Your task to perform on an android device: change timer sound Image 0: 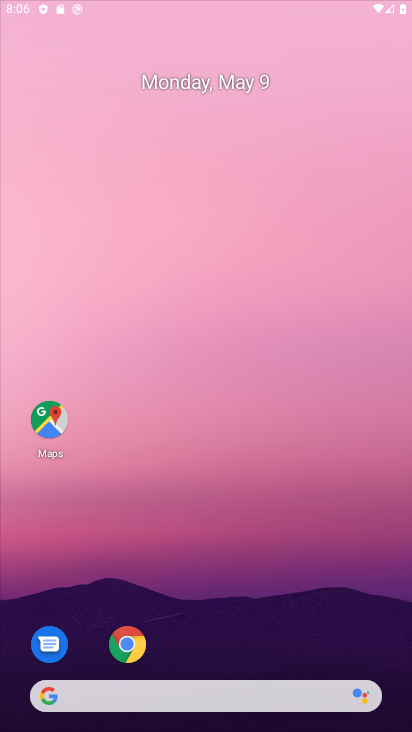
Step 0: click (223, 296)
Your task to perform on an android device: change timer sound Image 1: 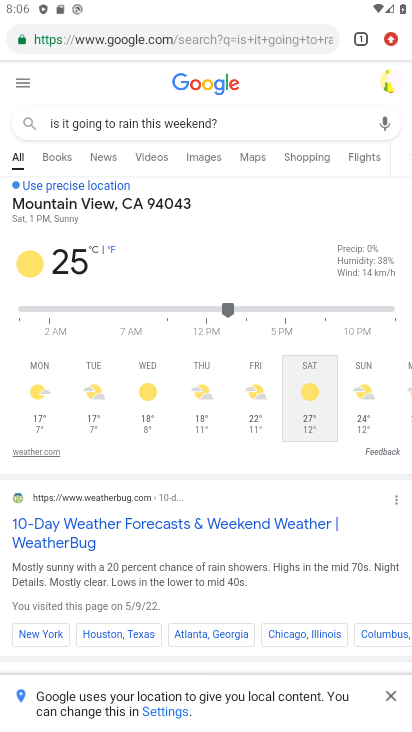
Step 1: press home button
Your task to perform on an android device: change timer sound Image 2: 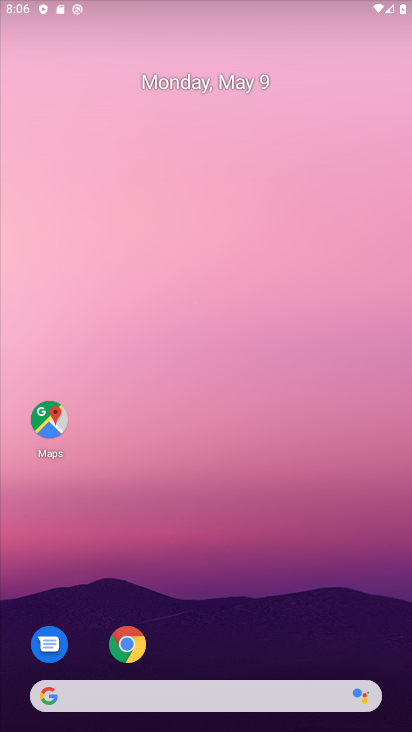
Step 2: drag from (201, 416) to (236, 74)
Your task to perform on an android device: change timer sound Image 3: 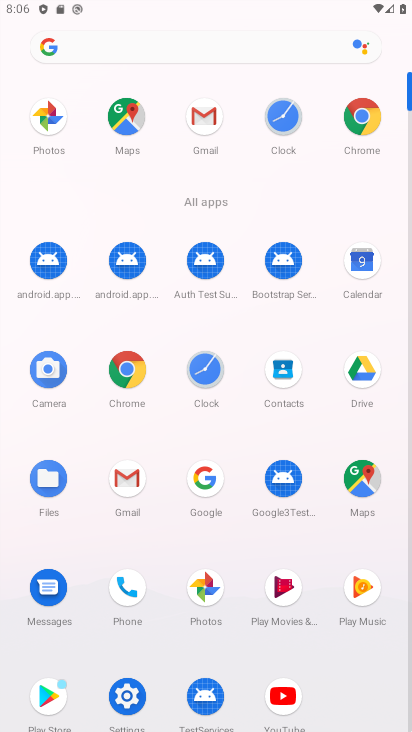
Step 3: click (204, 362)
Your task to perform on an android device: change timer sound Image 4: 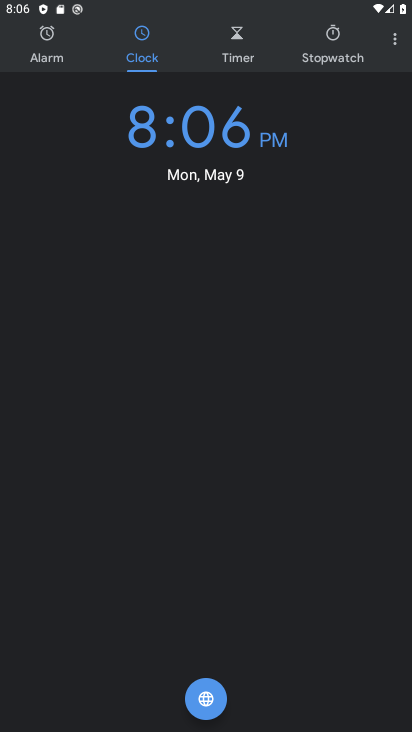
Step 4: click (395, 51)
Your task to perform on an android device: change timer sound Image 5: 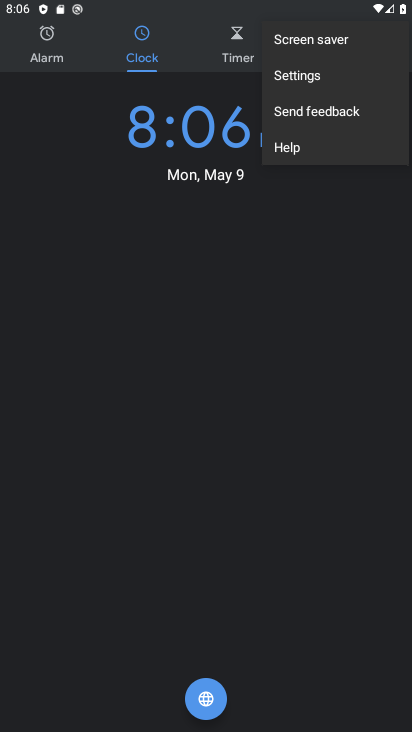
Step 5: click (318, 83)
Your task to perform on an android device: change timer sound Image 6: 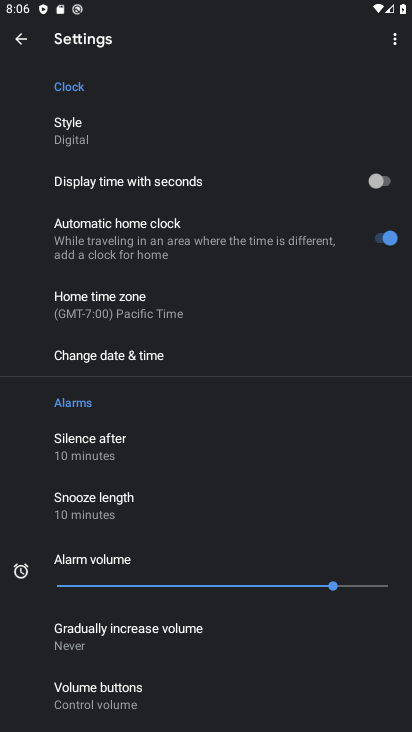
Step 6: drag from (220, 616) to (248, 346)
Your task to perform on an android device: change timer sound Image 7: 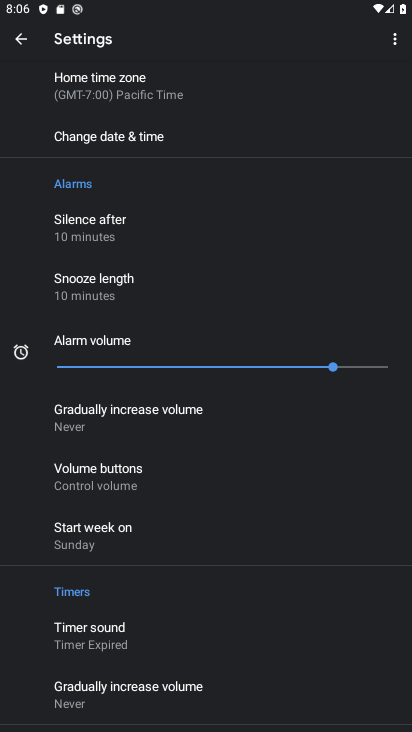
Step 7: click (213, 635)
Your task to perform on an android device: change timer sound Image 8: 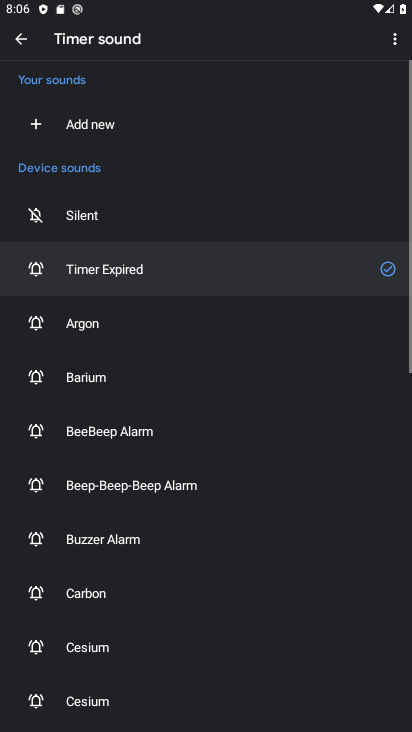
Step 8: click (129, 320)
Your task to perform on an android device: change timer sound Image 9: 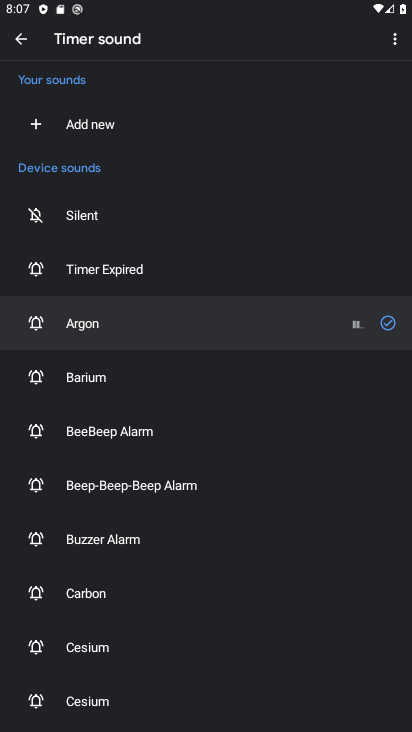
Step 9: task complete